Your task to perform on an android device: turn off location history Image 0: 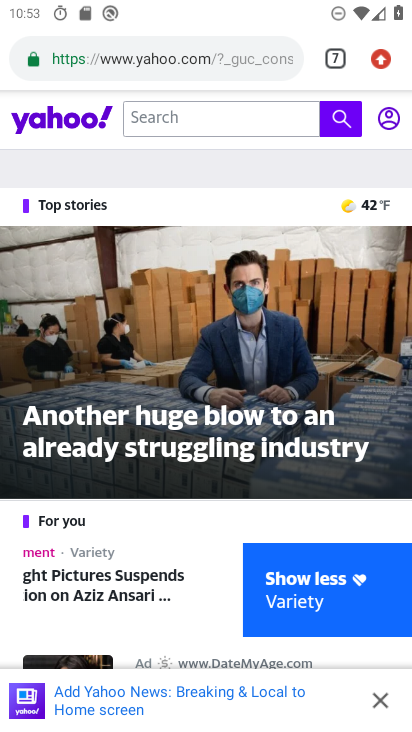
Step 0: drag from (296, 6) to (270, 411)
Your task to perform on an android device: turn off location history Image 1: 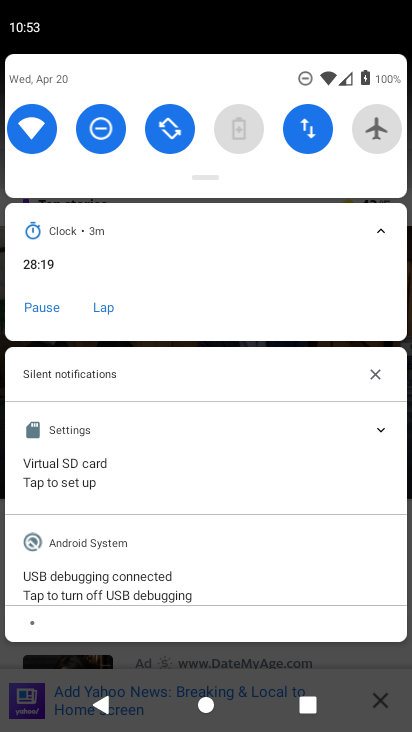
Step 1: drag from (164, 61) to (251, 571)
Your task to perform on an android device: turn off location history Image 2: 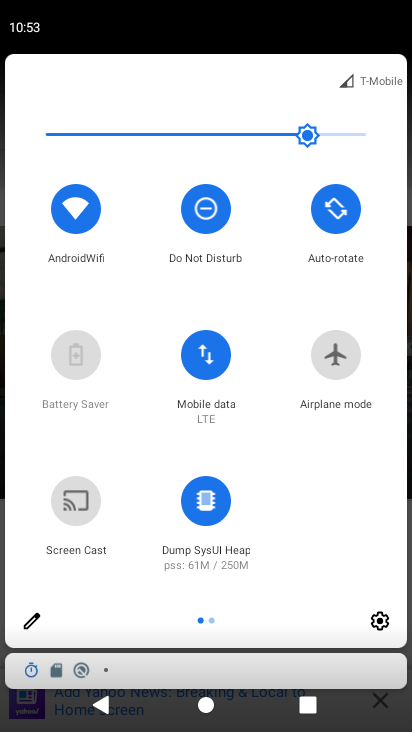
Step 2: click (387, 615)
Your task to perform on an android device: turn off location history Image 3: 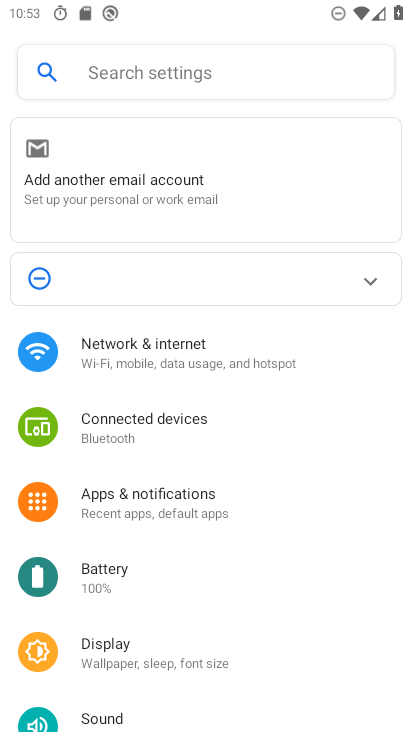
Step 3: drag from (165, 575) to (129, 248)
Your task to perform on an android device: turn off location history Image 4: 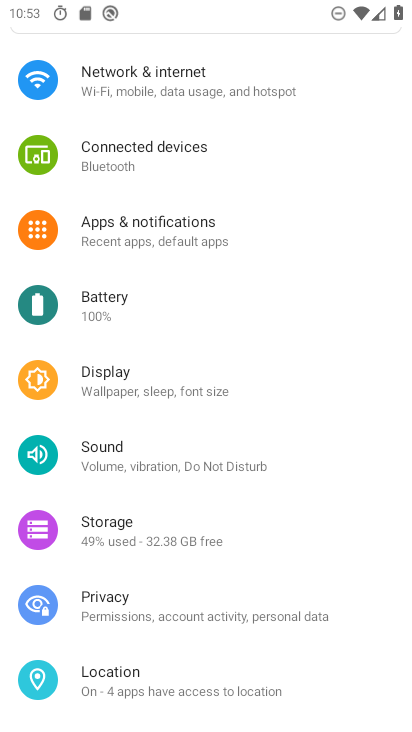
Step 4: click (102, 664)
Your task to perform on an android device: turn off location history Image 5: 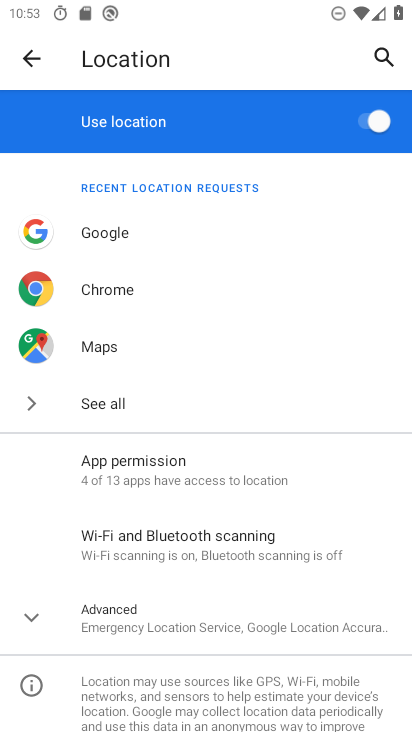
Step 5: click (172, 611)
Your task to perform on an android device: turn off location history Image 6: 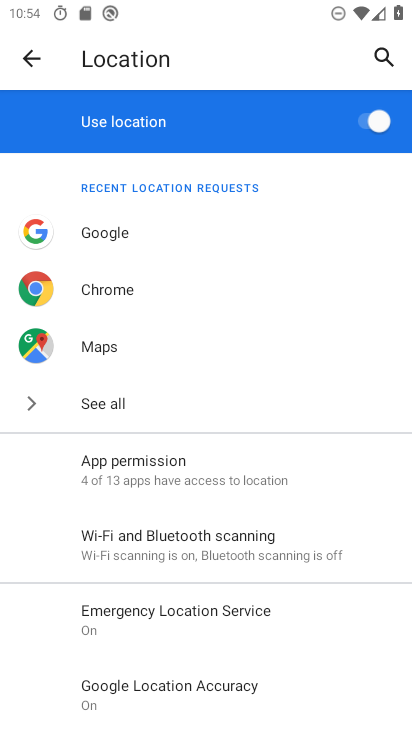
Step 6: drag from (172, 611) to (144, 56)
Your task to perform on an android device: turn off location history Image 7: 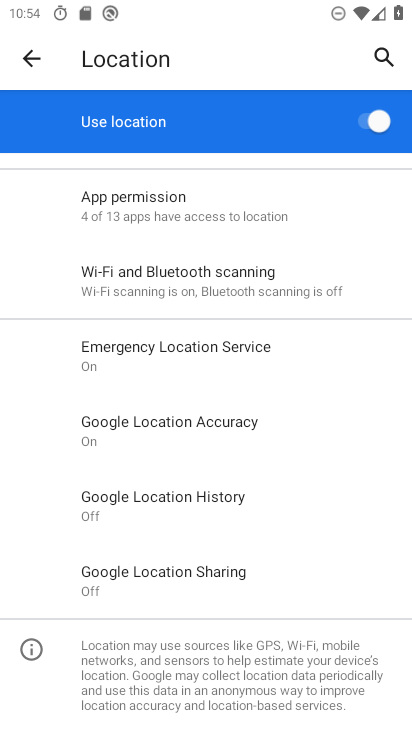
Step 7: click (174, 511)
Your task to perform on an android device: turn off location history Image 8: 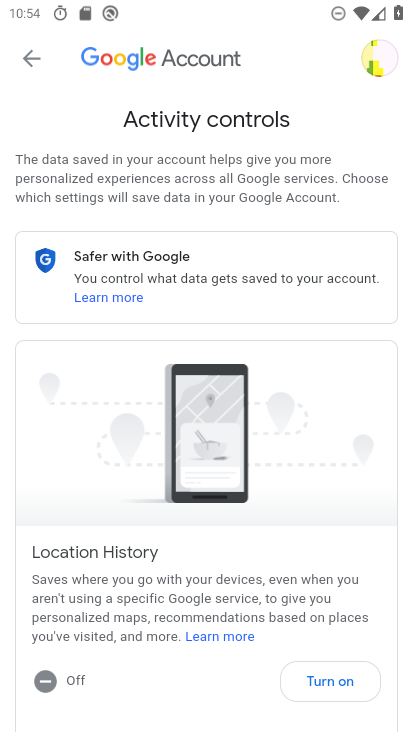
Step 8: task complete